Your task to perform on an android device: Go to calendar. Show me events next week Image 0: 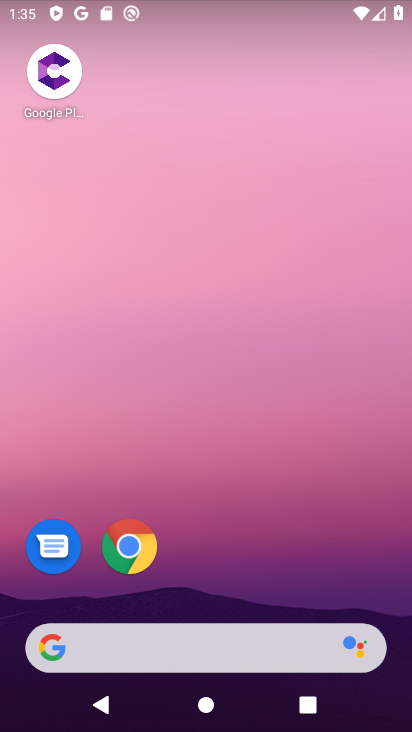
Step 0: click (297, 237)
Your task to perform on an android device: Go to calendar. Show me events next week Image 1: 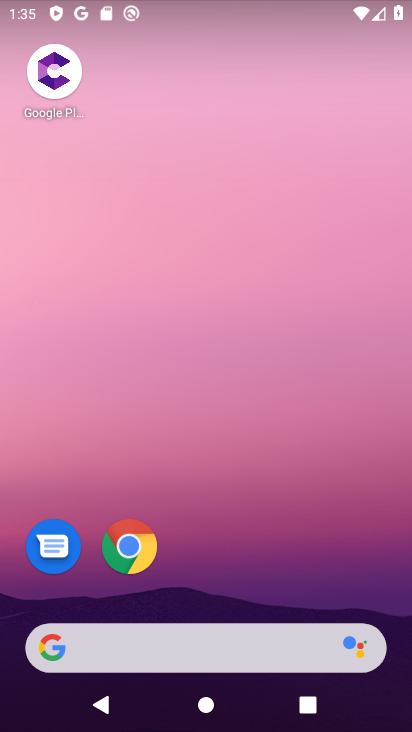
Step 1: drag from (190, 667) to (149, 35)
Your task to perform on an android device: Go to calendar. Show me events next week Image 2: 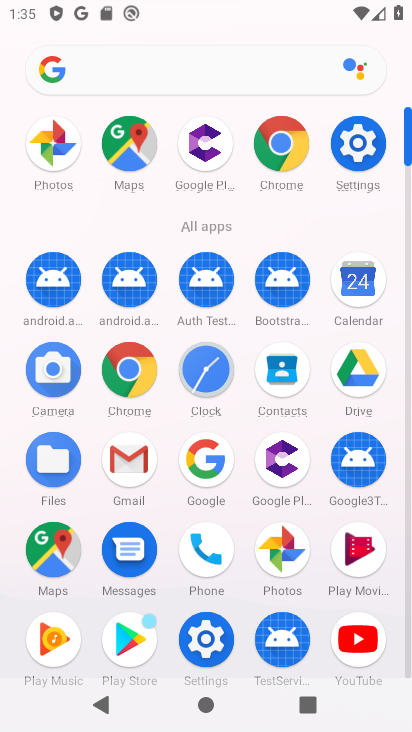
Step 2: click (356, 292)
Your task to perform on an android device: Go to calendar. Show me events next week Image 3: 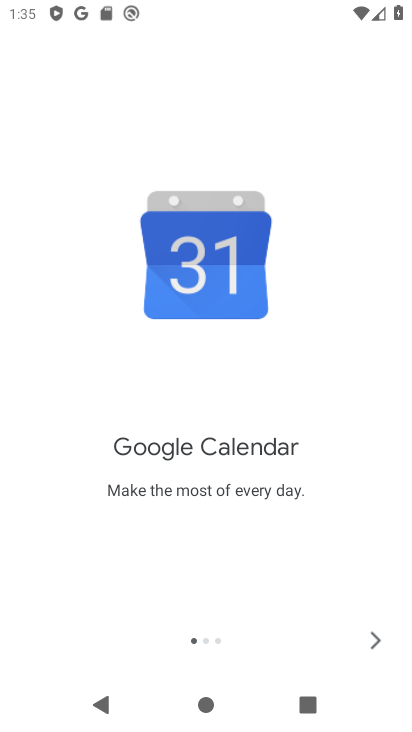
Step 3: click (369, 640)
Your task to perform on an android device: Go to calendar. Show me events next week Image 4: 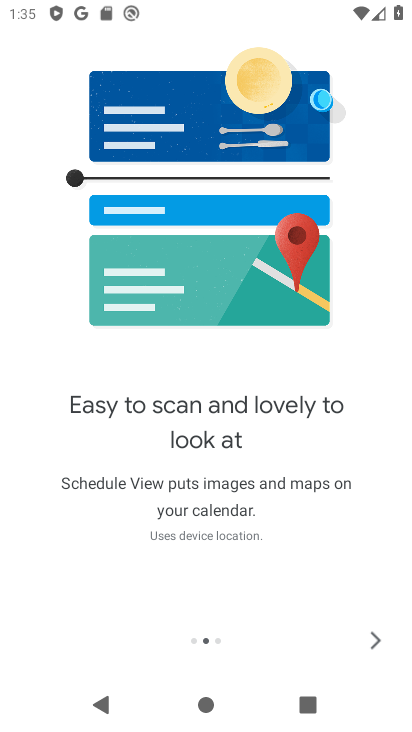
Step 4: click (378, 632)
Your task to perform on an android device: Go to calendar. Show me events next week Image 5: 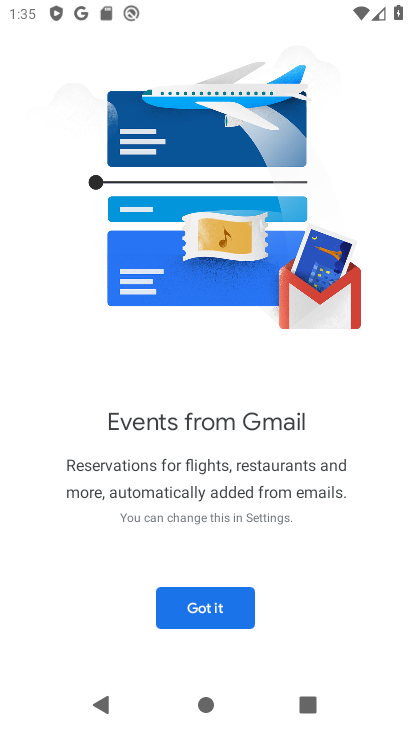
Step 5: click (224, 618)
Your task to perform on an android device: Go to calendar. Show me events next week Image 6: 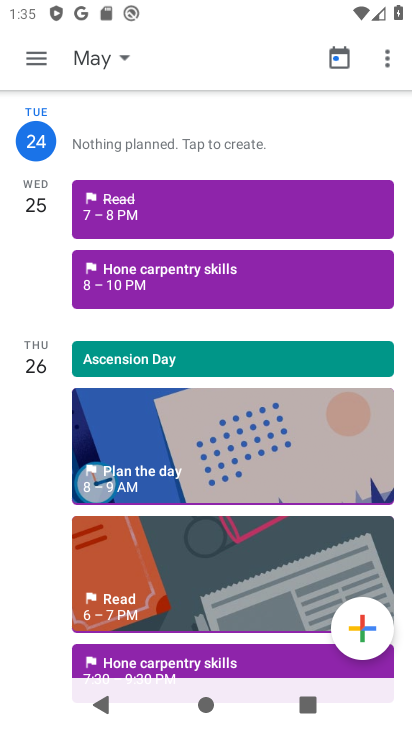
Step 6: click (37, 53)
Your task to perform on an android device: Go to calendar. Show me events next week Image 7: 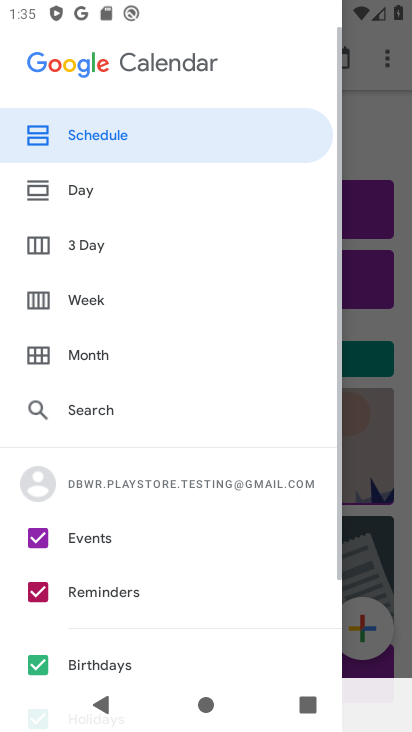
Step 7: click (111, 303)
Your task to perform on an android device: Go to calendar. Show me events next week Image 8: 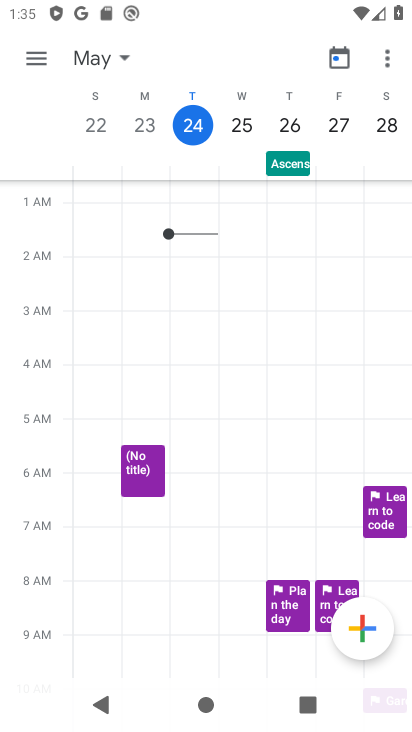
Step 8: task complete